Your task to perform on an android device: see sites visited before in the chrome app Image 0: 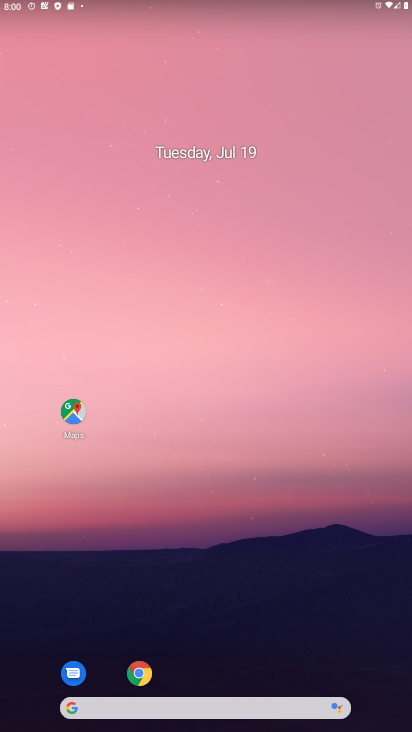
Step 0: drag from (289, 394) to (279, 50)
Your task to perform on an android device: see sites visited before in the chrome app Image 1: 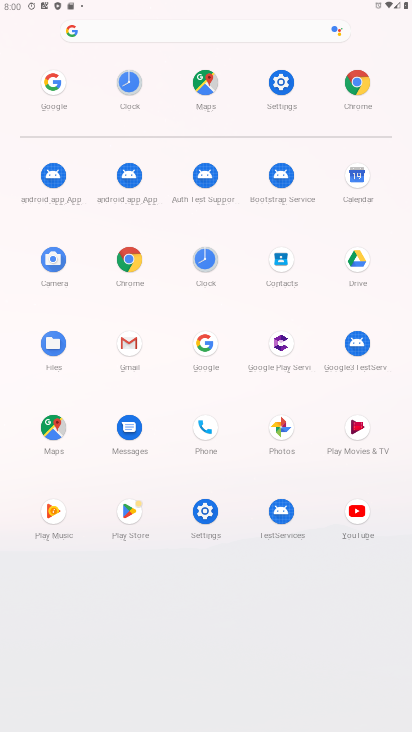
Step 1: click (359, 85)
Your task to perform on an android device: see sites visited before in the chrome app Image 2: 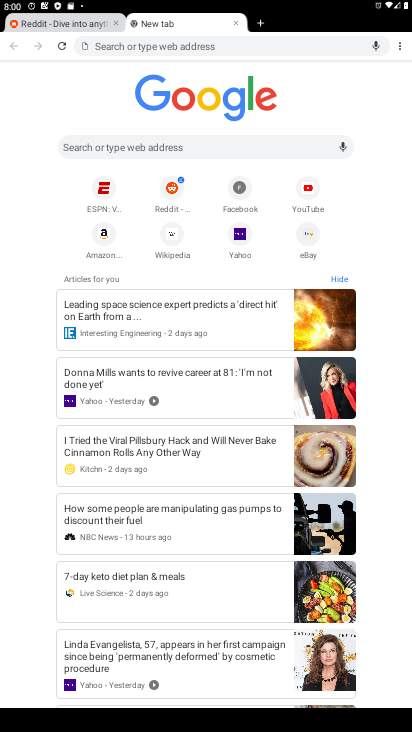
Step 2: drag from (400, 35) to (322, 114)
Your task to perform on an android device: see sites visited before in the chrome app Image 3: 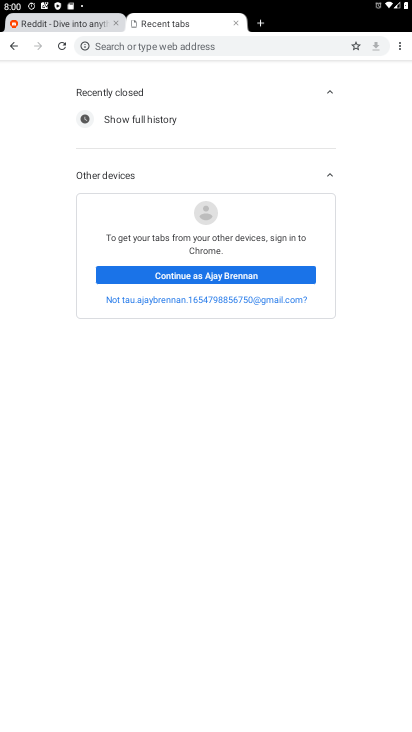
Step 3: click (173, 282)
Your task to perform on an android device: see sites visited before in the chrome app Image 4: 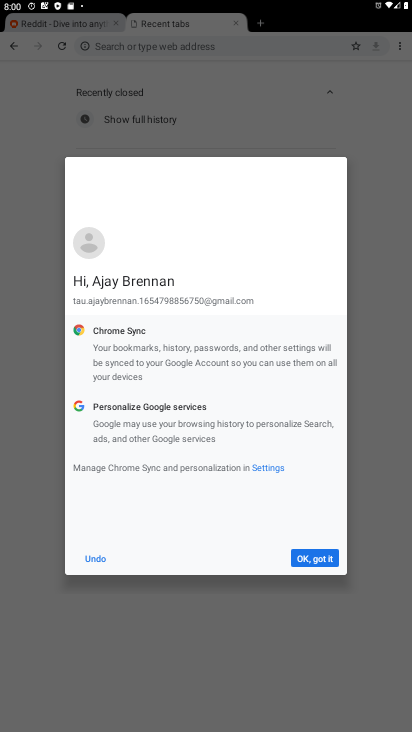
Step 4: click (311, 550)
Your task to perform on an android device: see sites visited before in the chrome app Image 5: 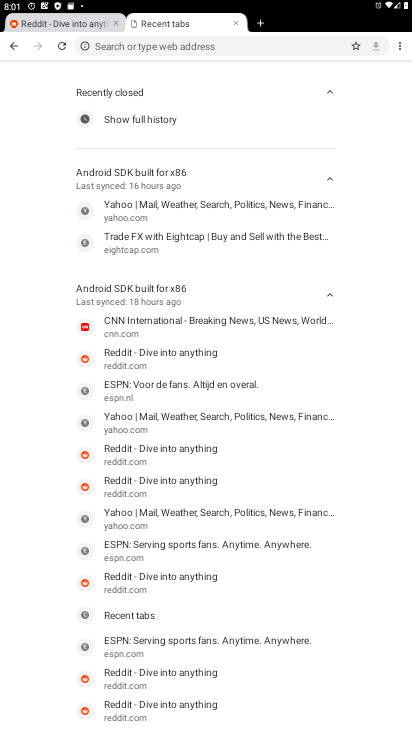
Step 5: task complete